Your task to perform on an android device: delete browsing data in the chrome app Image 0: 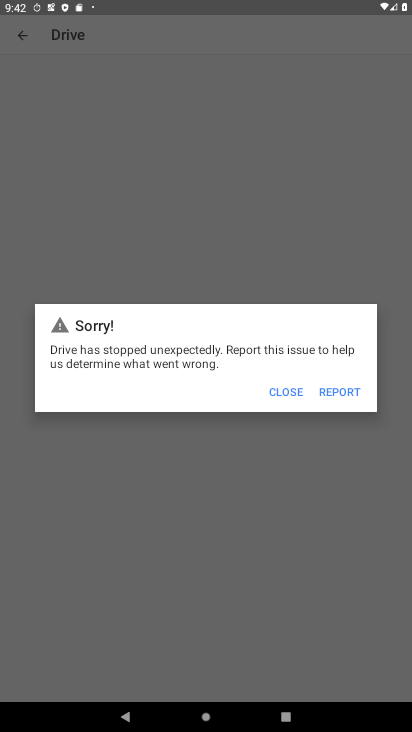
Step 0: press home button
Your task to perform on an android device: delete browsing data in the chrome app Image 1: 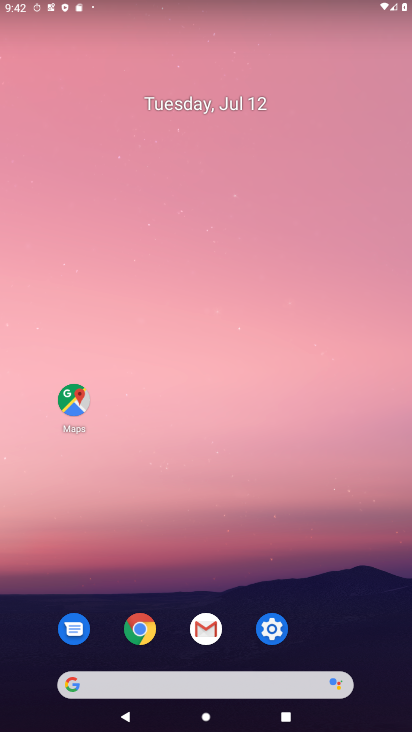
Step 1: click (263, 637)
Your task to perform on an android device: delete browsing data in the chrome app Image 2: 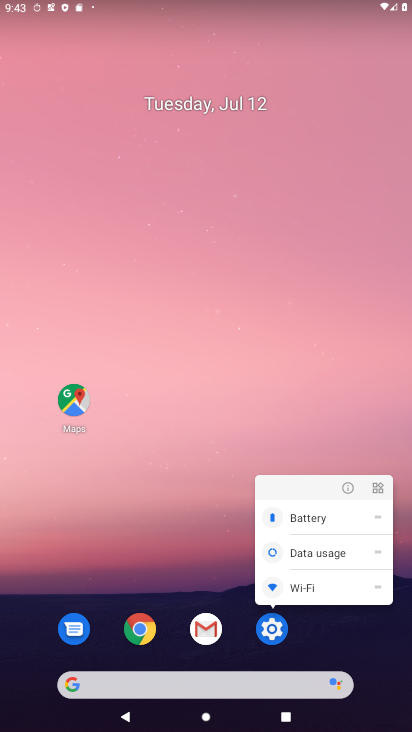
Step 2: click (273, 624)
Your task to perform on an android device: delete browsing data in the chrome app Image 3: 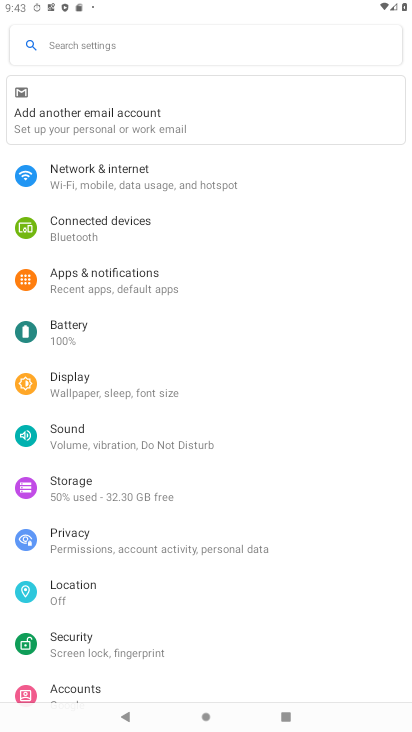
Step 3: press home button
Your task to perform on an android device: delete browsing data in the chrome app Image 4: 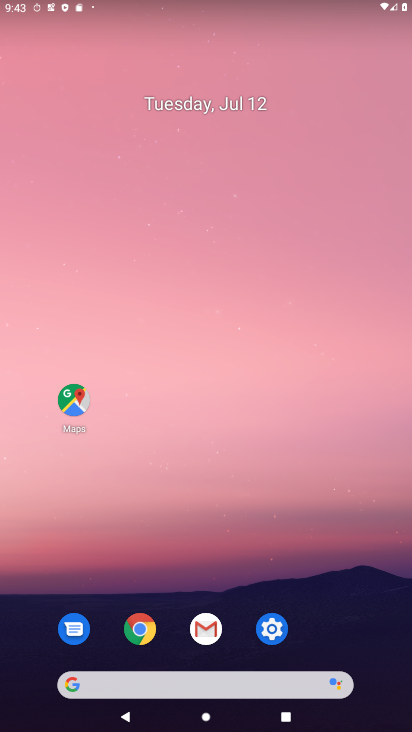
Step 4: click (142, 628)
Your task to perform on an android device: delete browsing data in the chrome app Image 5: 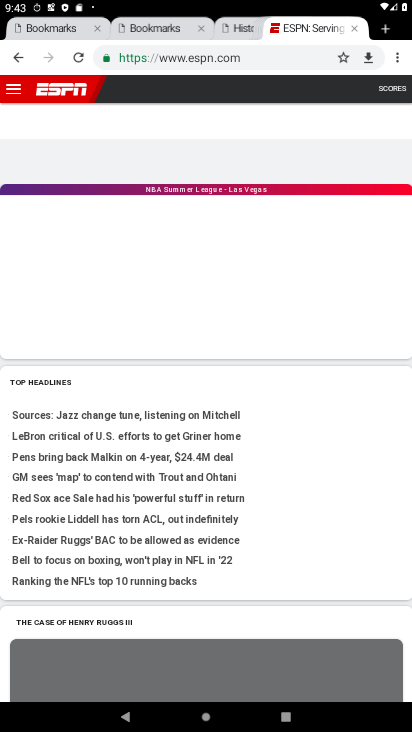
Step 5: click (397, 58)
Your task to perform on an android device: delete browsing data in the chrome app Image 6: 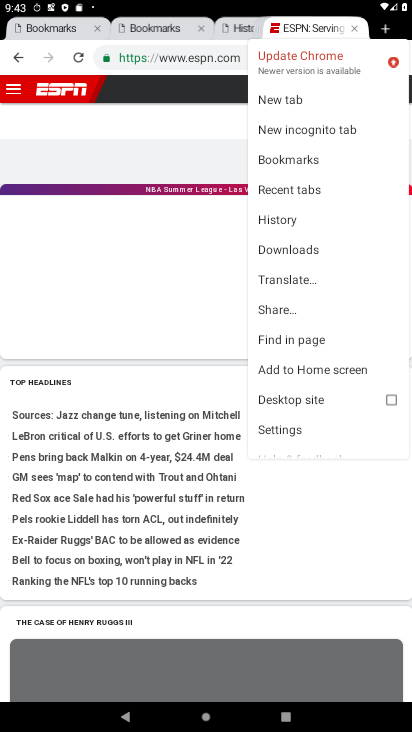
Step 6: click (286, 218)
Your task to perform on an android device: delete browsing data in the chrome app Image 7: 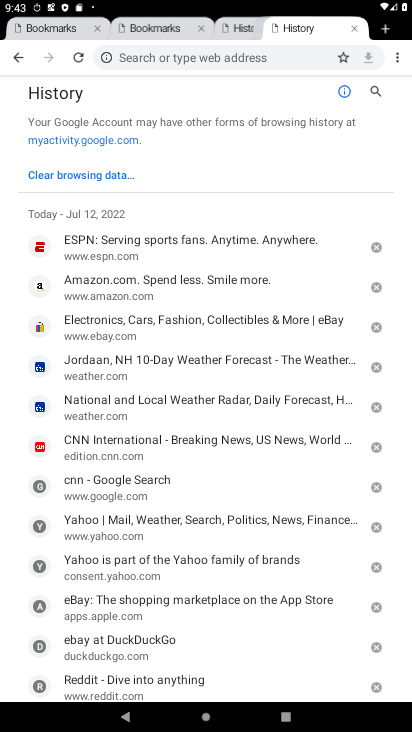
Step 7: click (78, 175)
Your task to perform on an android device: delete browsing data in the chrome app Image 8: 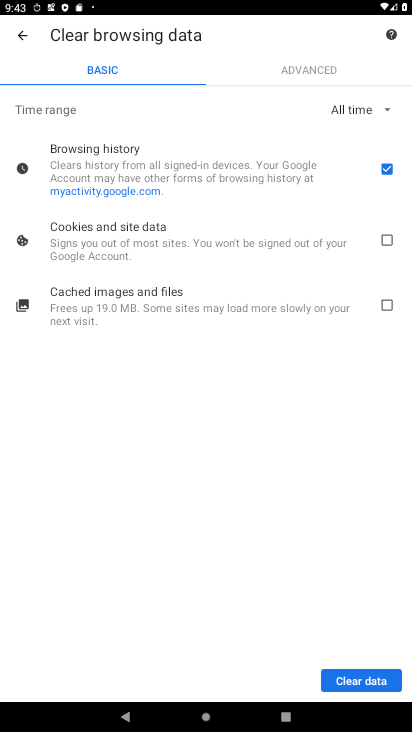
Step 8: click (354, 670)
Your task to perform on an android device: delete browsing data in the chrome app Image 9: 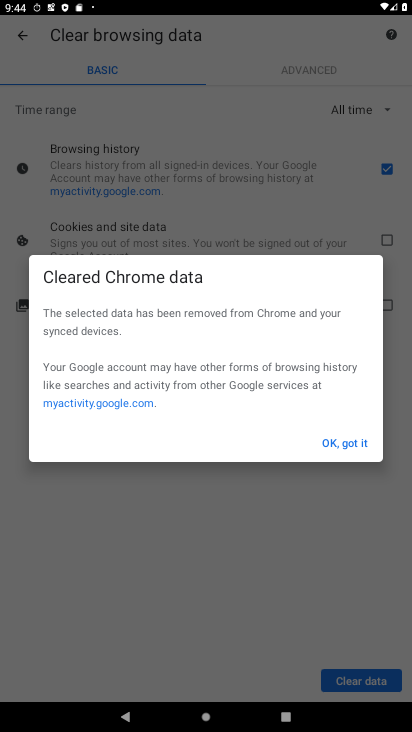
Step 9: click (347, 431)
Your task to perform on an android device: delete browsing data in the chrome app Image 10: 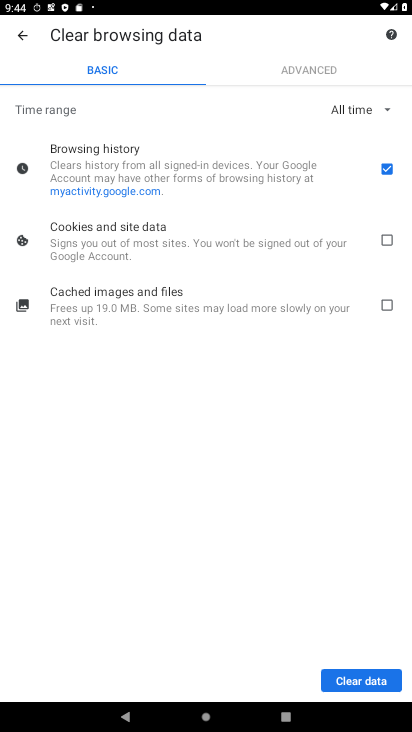
Step 10: task complete